Your task to perform on an android device: move a message to another label in the gmail app Image 0: 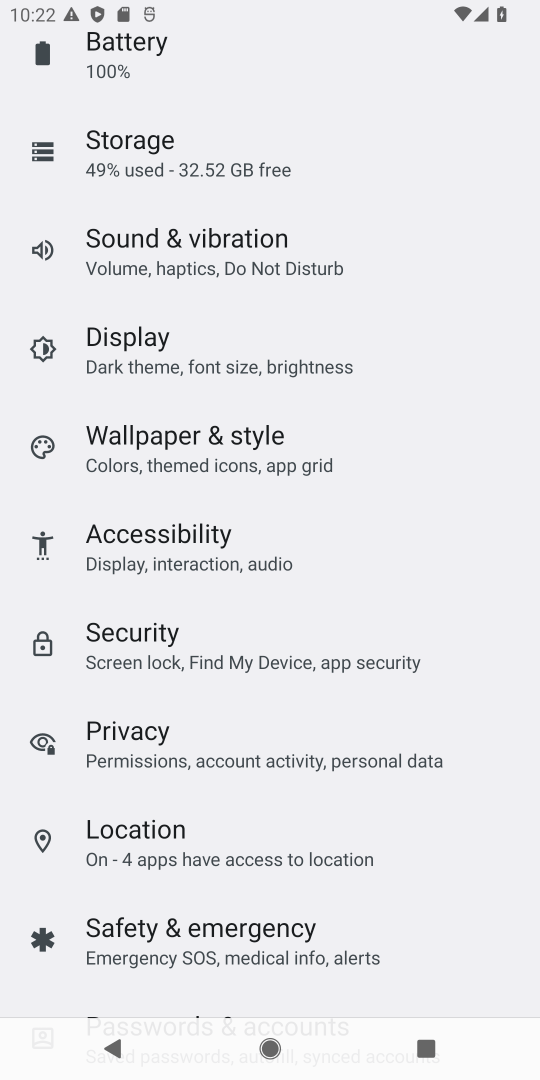
Step 0: press home button
Your task to perform on an android device: move a message to another label in the gmail app Image 1: 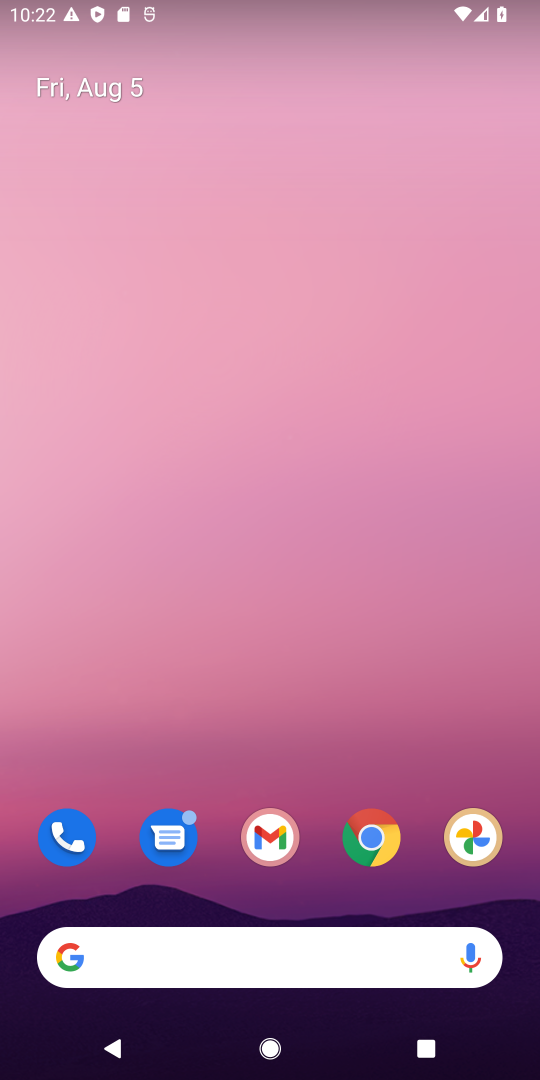
Step 1: click (278, 835)
Your task to perform on an android device: move a message to another label in the gmail app Image 2: 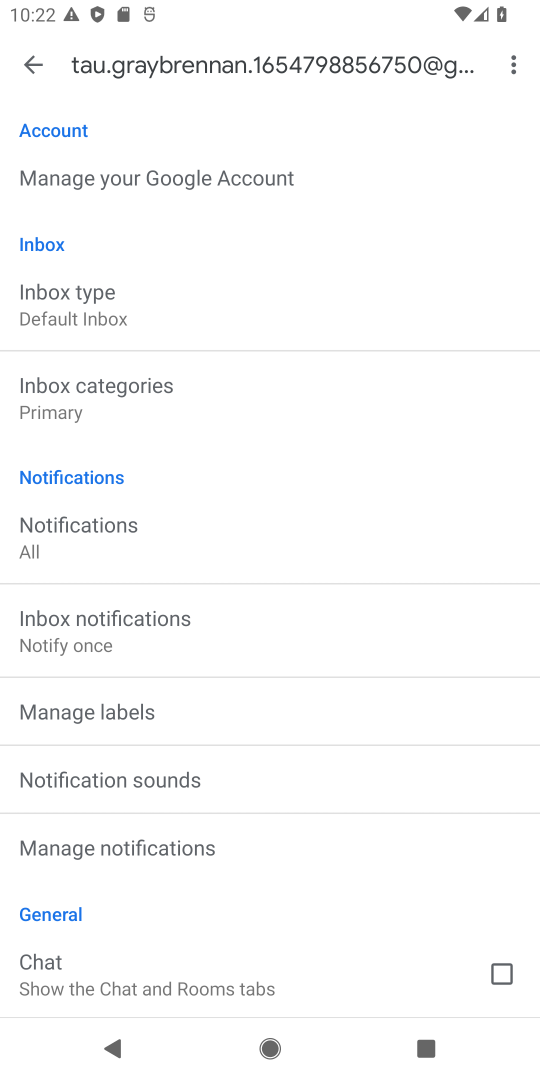
Step 2: click (278, 835)
Your task to perform on an android device: move a message to another label in the gmail app Image 3: 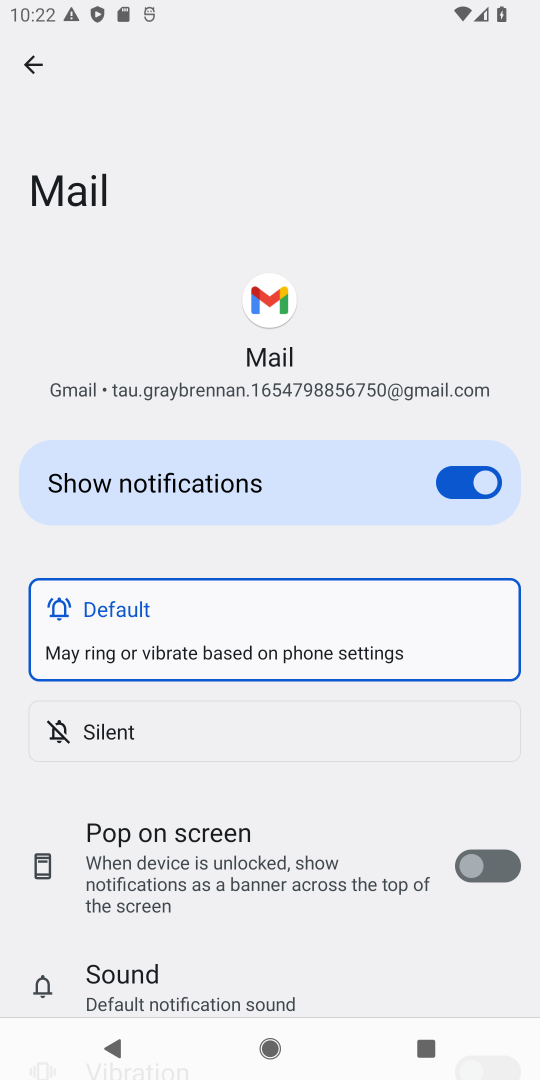
Step 3: click (32, 67)
Your task to perform on an android device: move a message to another label in the gmail app Image 4: 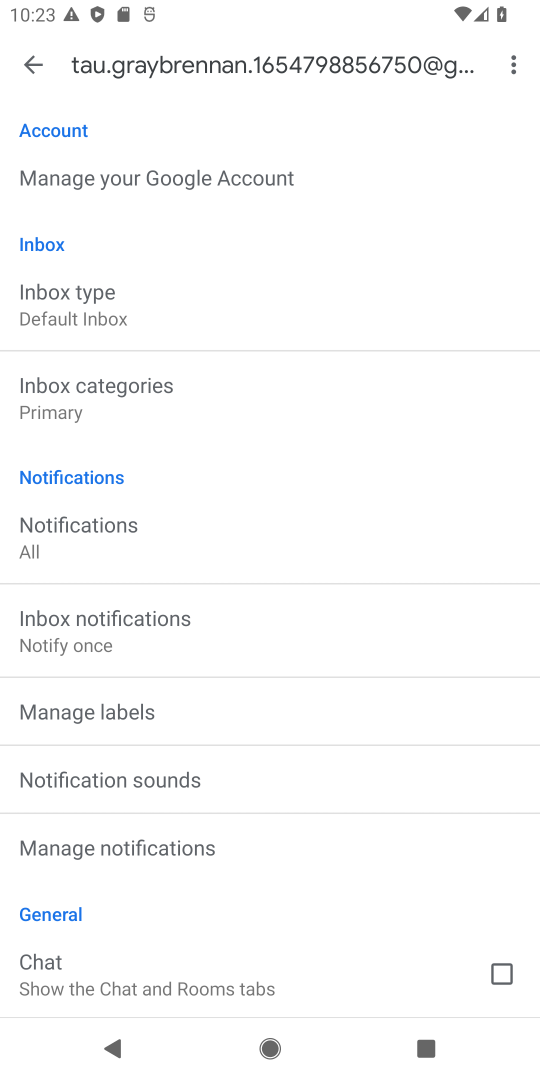
Step 4: click (32, 67)
Your task to perform on an android device: move a message to another label in the gmail app Image 5: 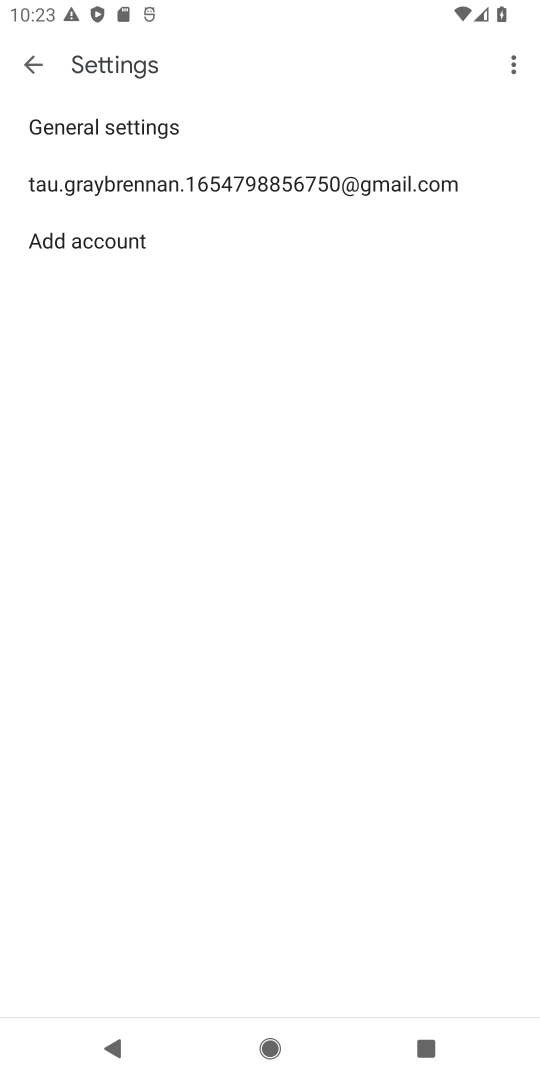
Step 5: click (32, 67)
Your task to perform on an android device: move a message to another label in the gmail app Image 6: 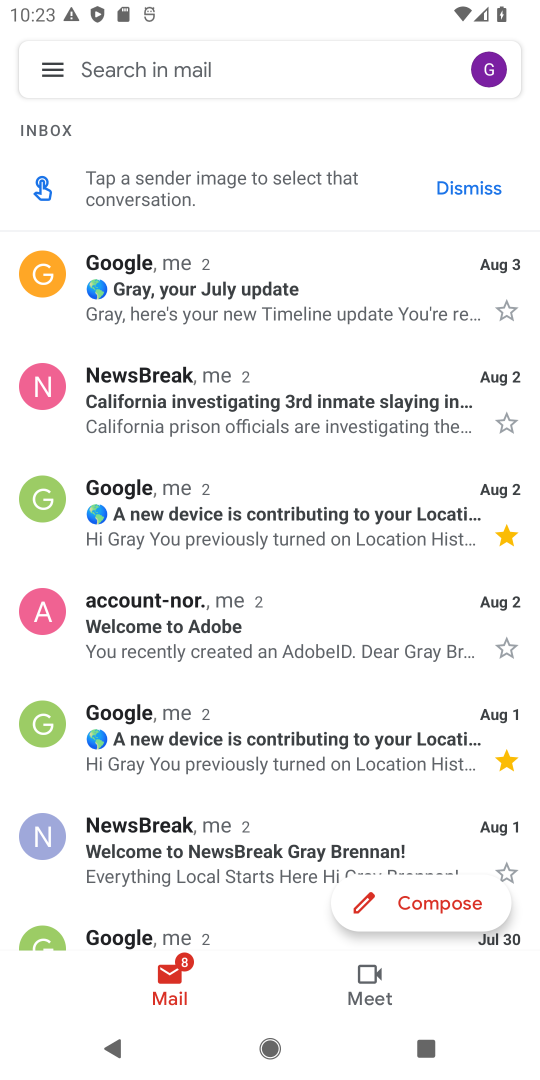
Step 6: click (236, 273)
Your task to perform on an android device: move a message to another label in the gmail app Image 7: 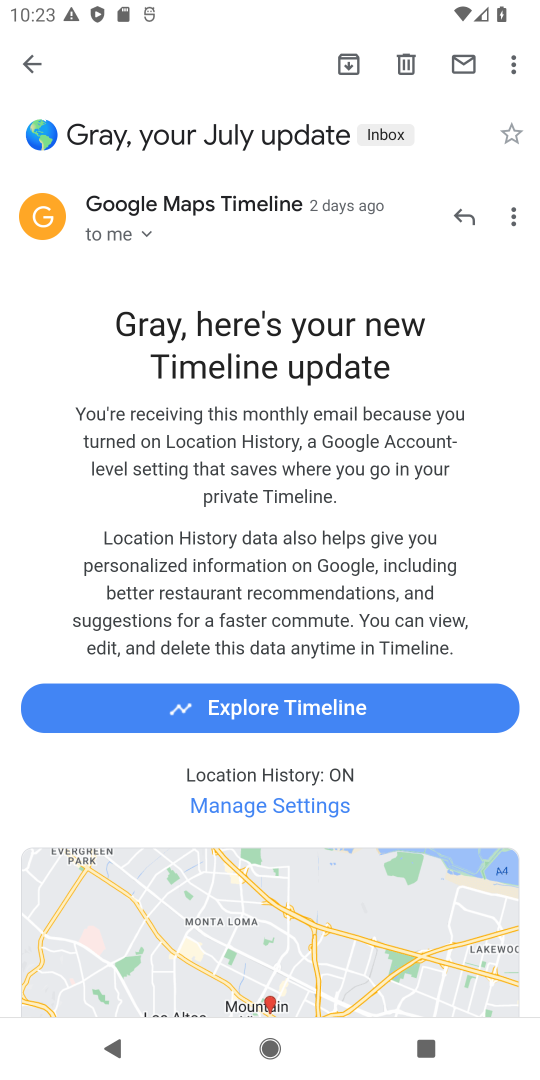
Step 7: click (509, 130)
Your task to perform on an android device: move a message to another label in the gmail app Image 8: 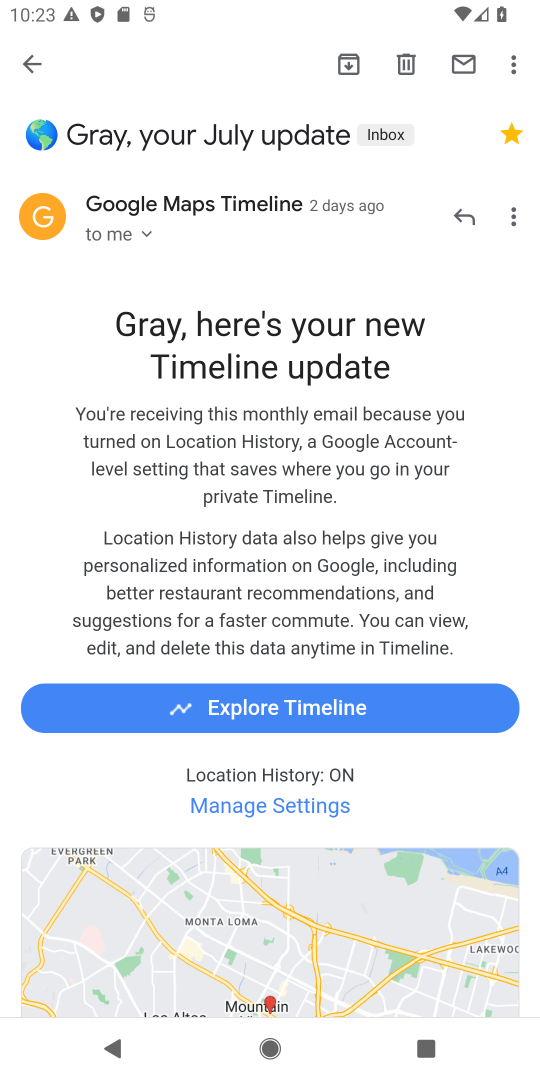
Step 8: click (31, 62)
Your task to perform on an android device: move a message to another label in the gmail app Image 9: 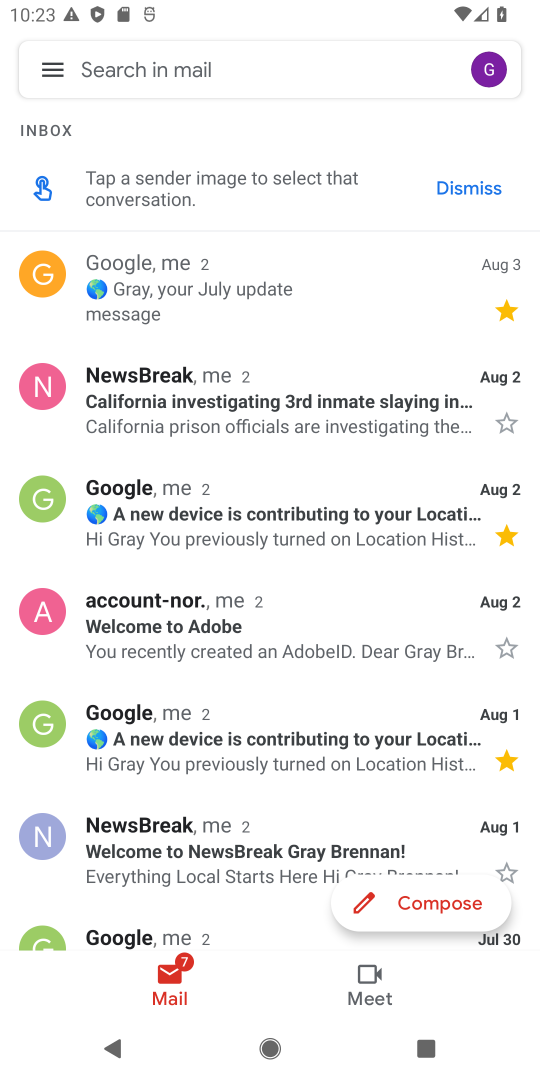
Step 9: task complete